Your task to perform on an android device: Clear the cart on walmart. Search for razer huntsman on walmart, select the first entry, and add it to the cart. Image 0: 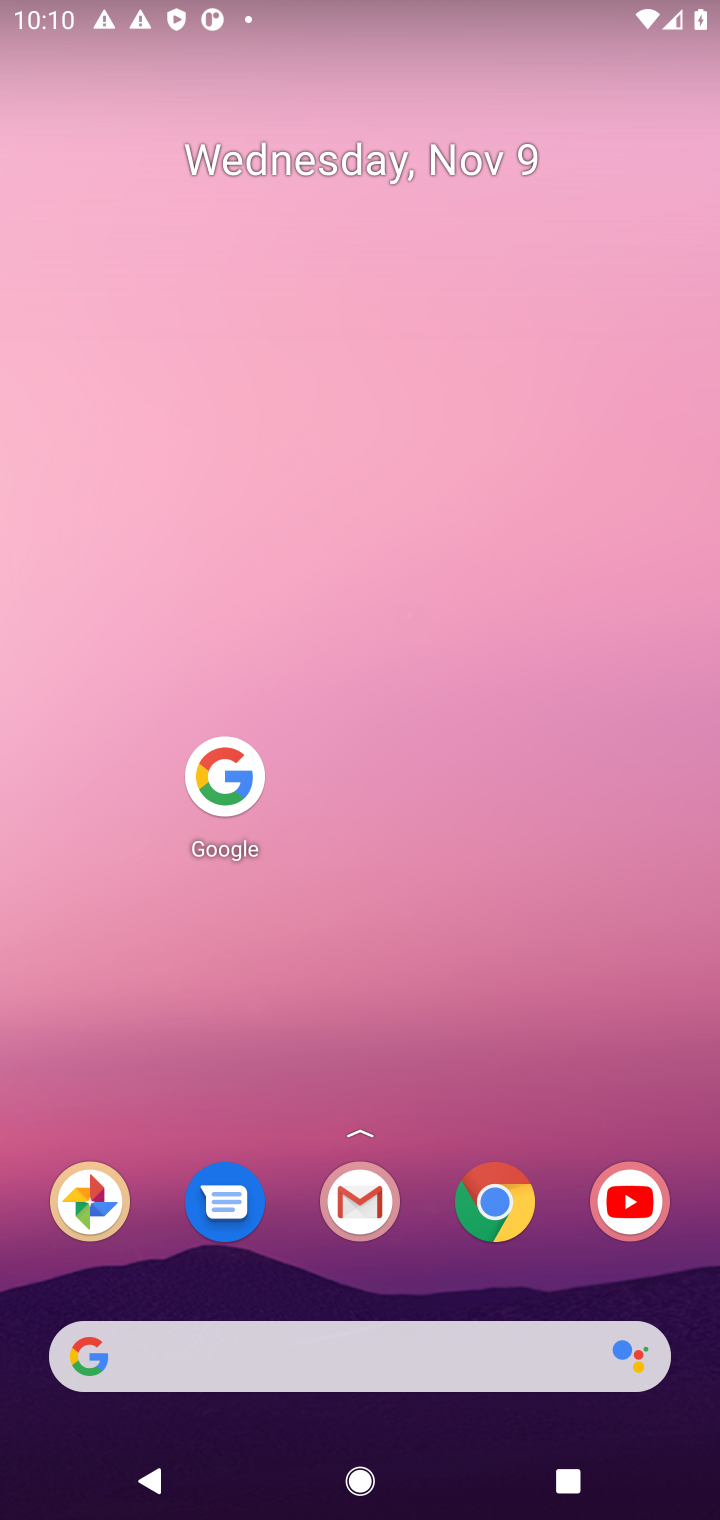
Step 0: click (207, 762)
Your task to perform on an android device: Clear the cart on walmart. Search for razer huntsman on walmart, select the first entry, and add it to the cart. Image 1: 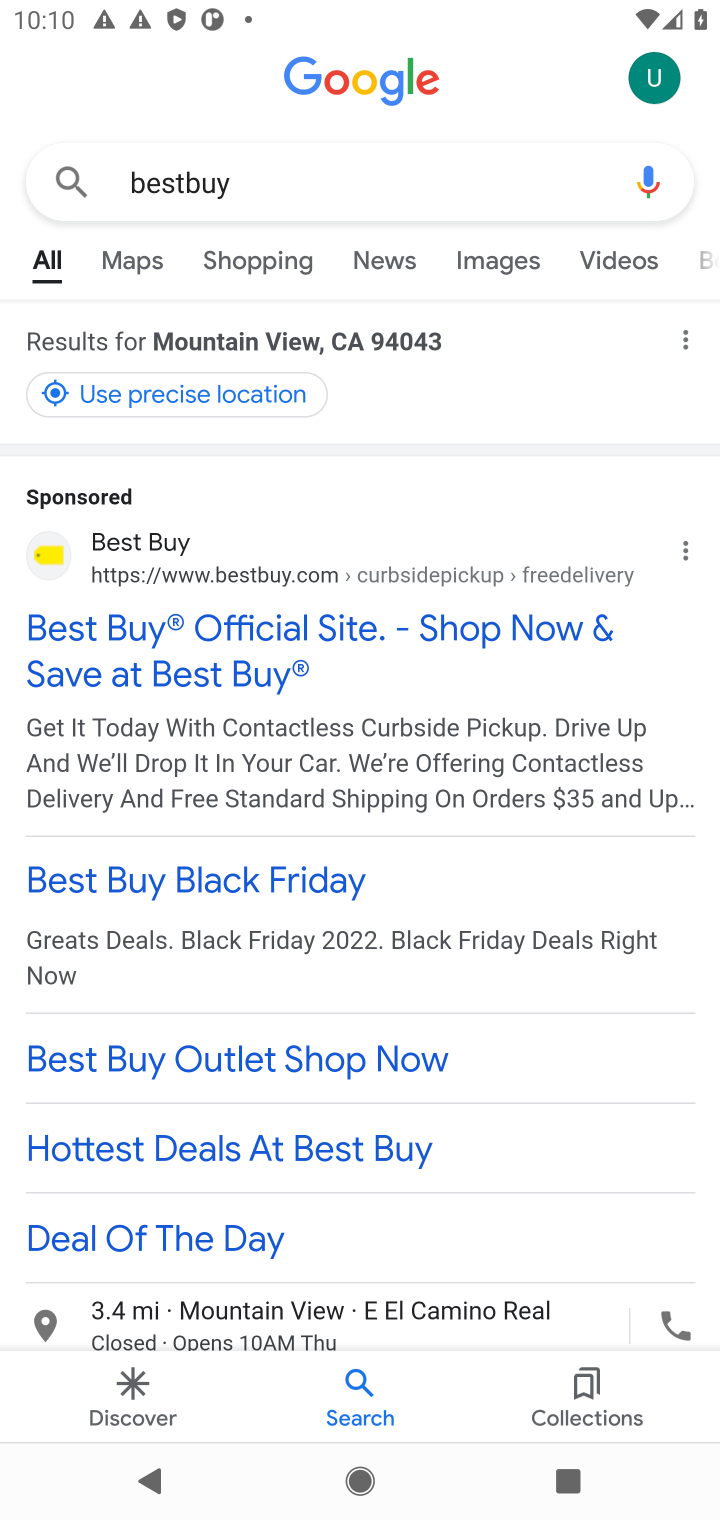
Step 1: click (335, 172)
Your task to perform on an android device: Clear the cart on walmart. Search for razer huntsman on walmart, select the first entry, and add it to the cart. Image 2: 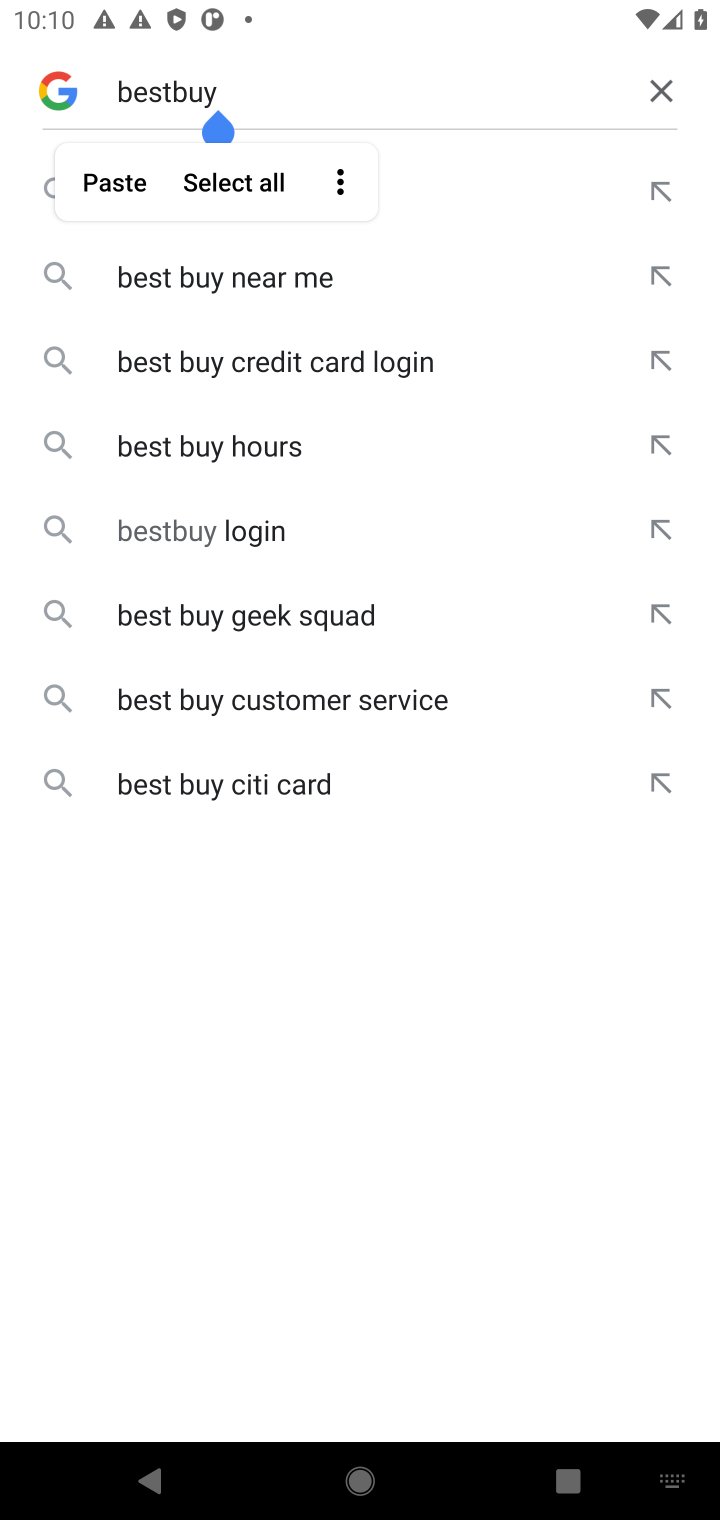
Step 2: click (658, 85)
Your task to perform on an android device: Clear the cart on walmart. Search for razer huntsman on walmart, select the first entry, and add it to the cart. Image 3: 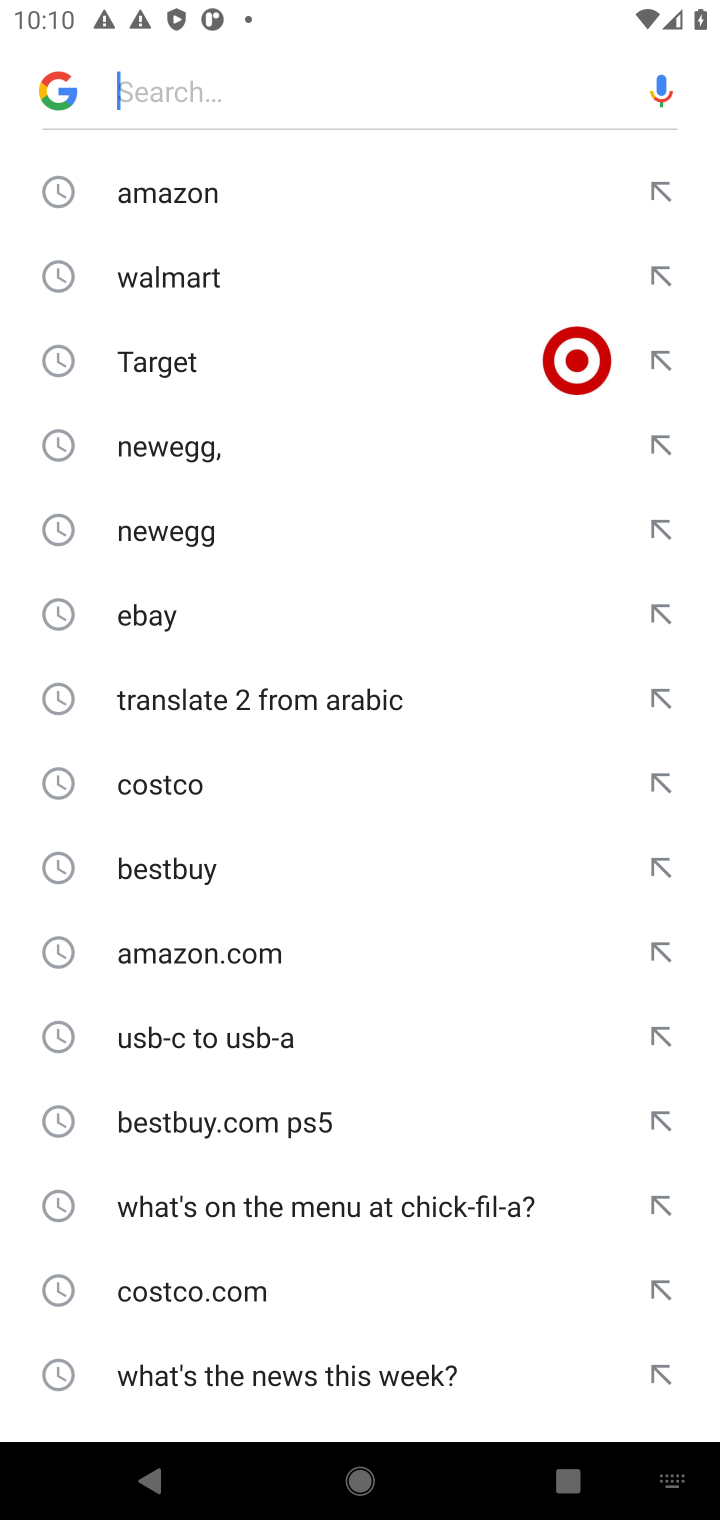
Step 3: click (170, 274)
Your task to perform on an android device: Clear the cart on walmart. Search for razer huntsman on walmart, select the first entry, and add it to the cart. Image 4: 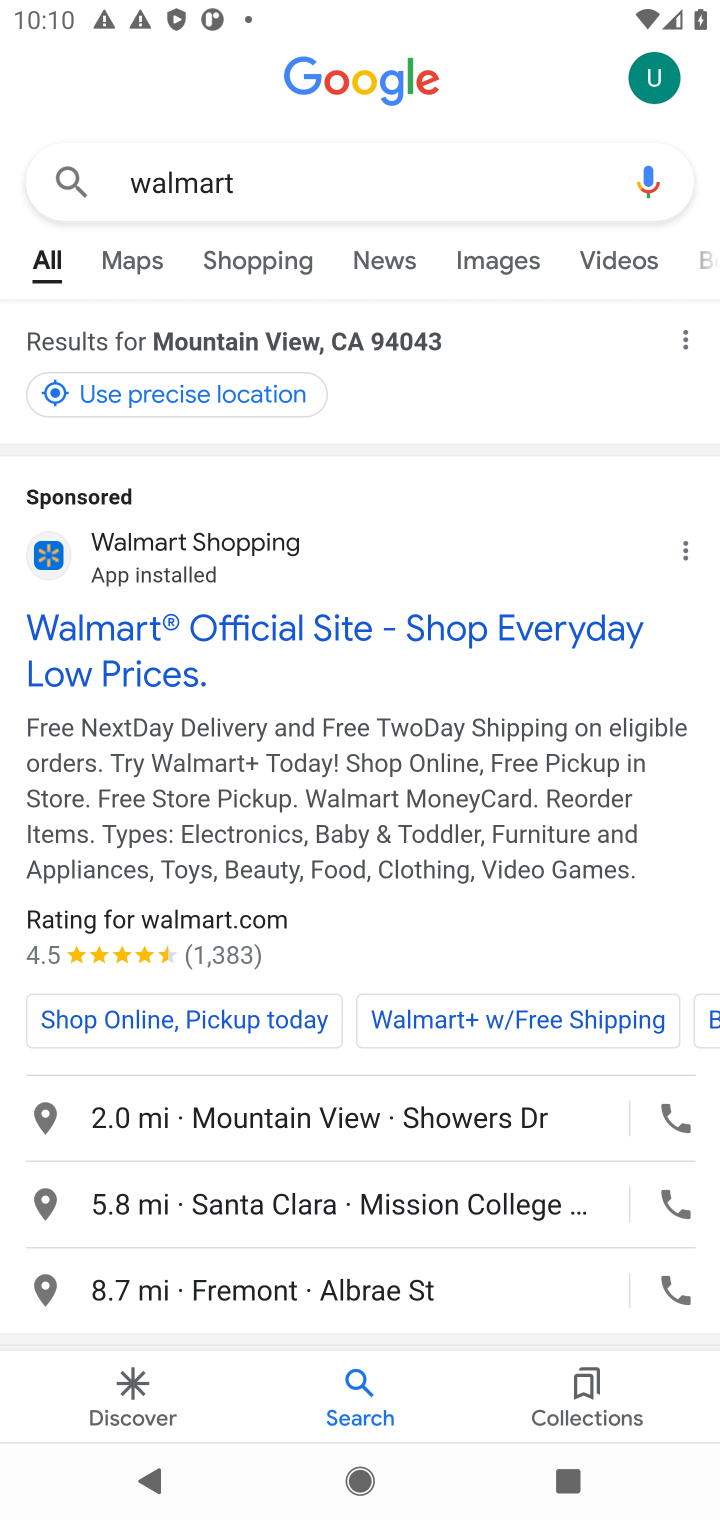
Step 4: drag from (281, 1255) to (471, 451)
Your task to perform on an android device: Clear the cart on walmart. Search for razer huntsman on walmart, select the first entry, and add it to the cart. Image 5: 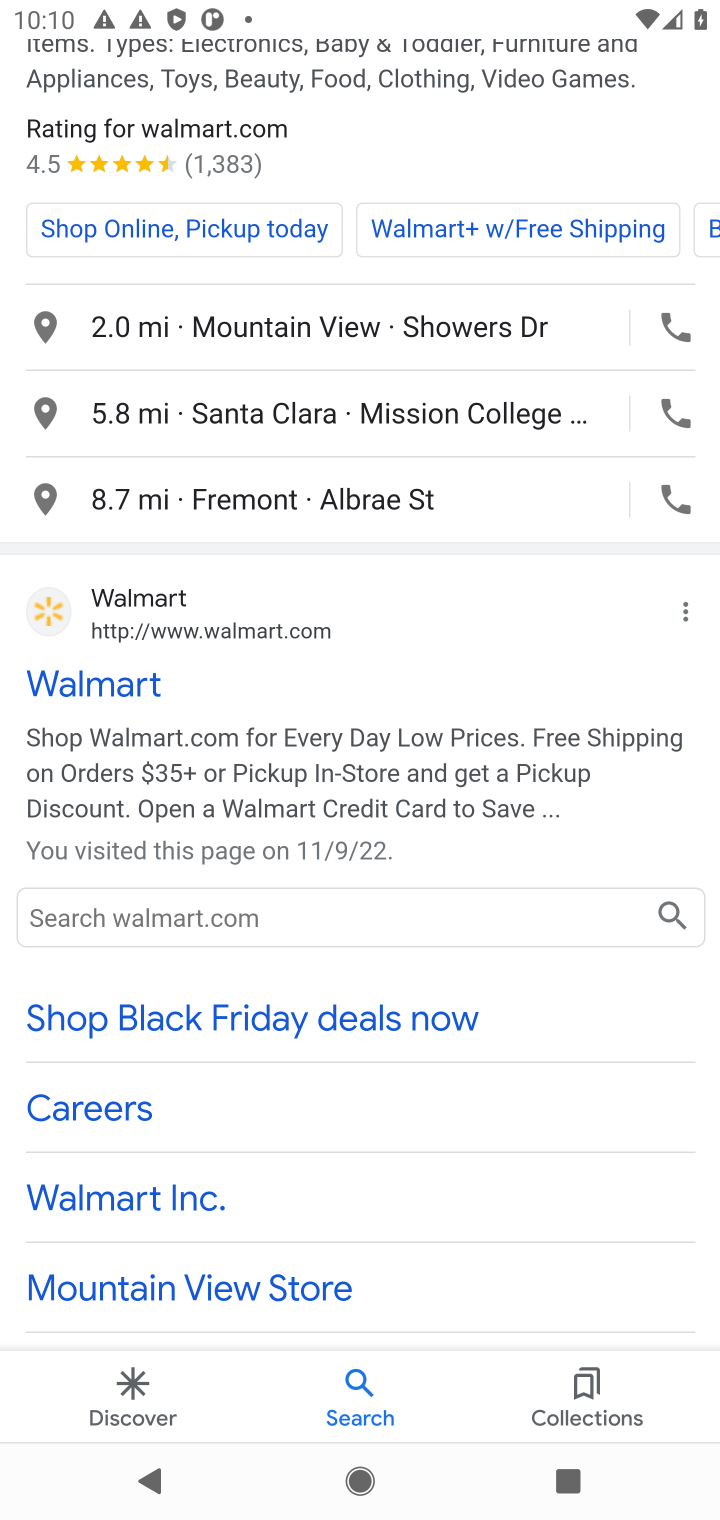
Step 5: click (114, 674)
Your task to perform on an android device: Clear the cart on walmart. Search for razer huntsman on walmart, select the first entry, and add it to the cart. Image 6: 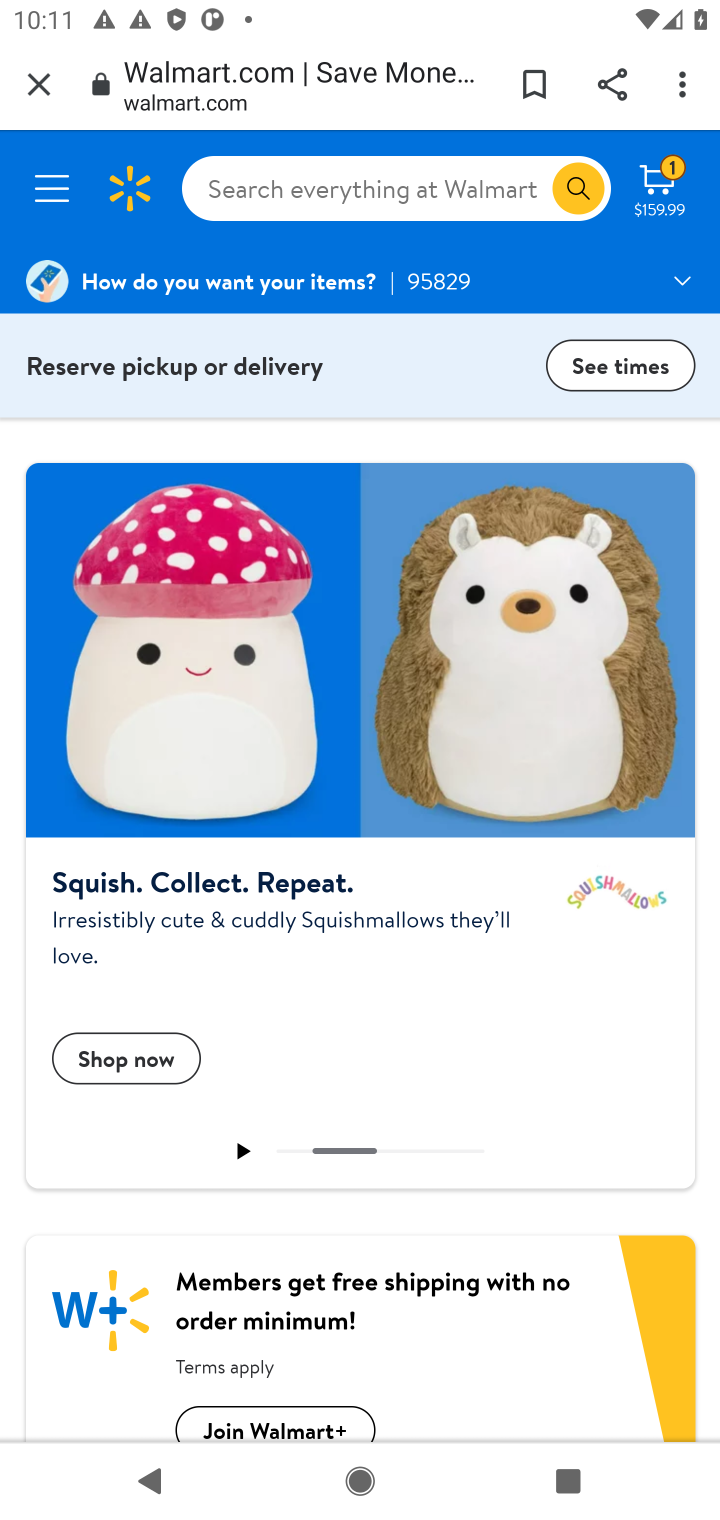
Step 6: click (659, 168)
Your task to perform on an android device: Clear the cart on walmart. Search for razer huntsman on walmart, select the first entry, and add it to the cart. Image 7: 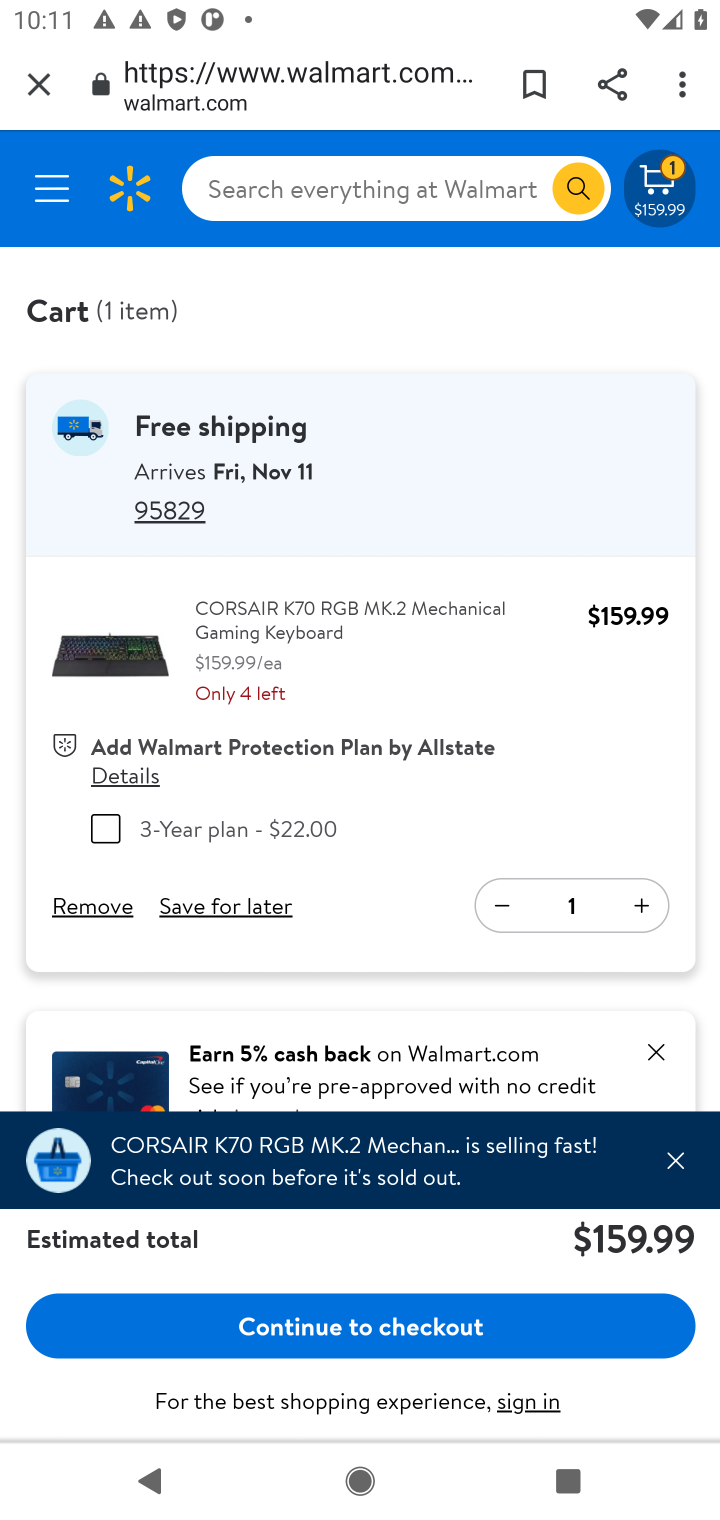
Step 7: click (102, 908)
Your task to perform on an android device: Clear the cart on walmart. Search for razer huntsman on walmart, select the first entry, and add it to the cart. Image 8: 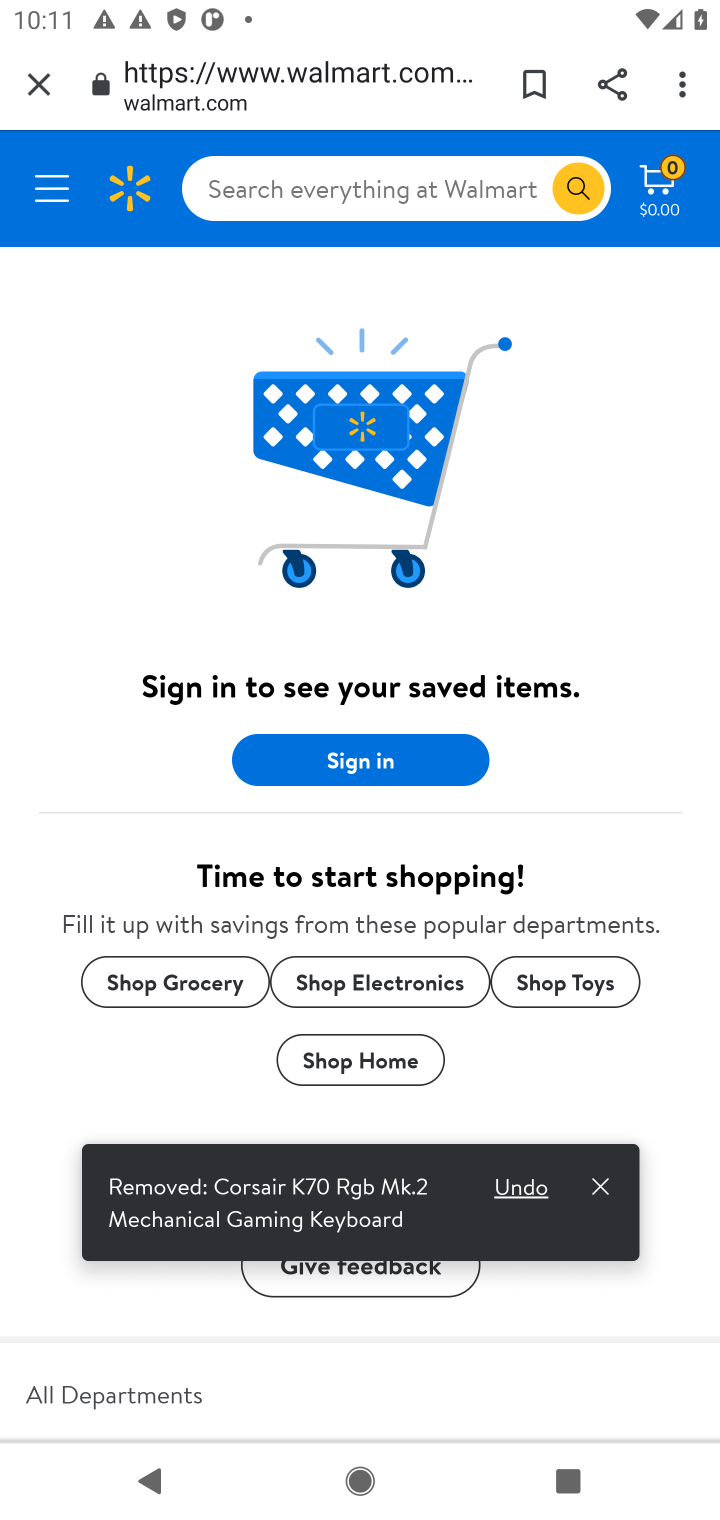
Step 8: click (414, 180)
Your task to perform on an android device: Clear the cart on walmart. Search for razer huntsman on walmart, select the first entry, and add it to the cart. Image 9: 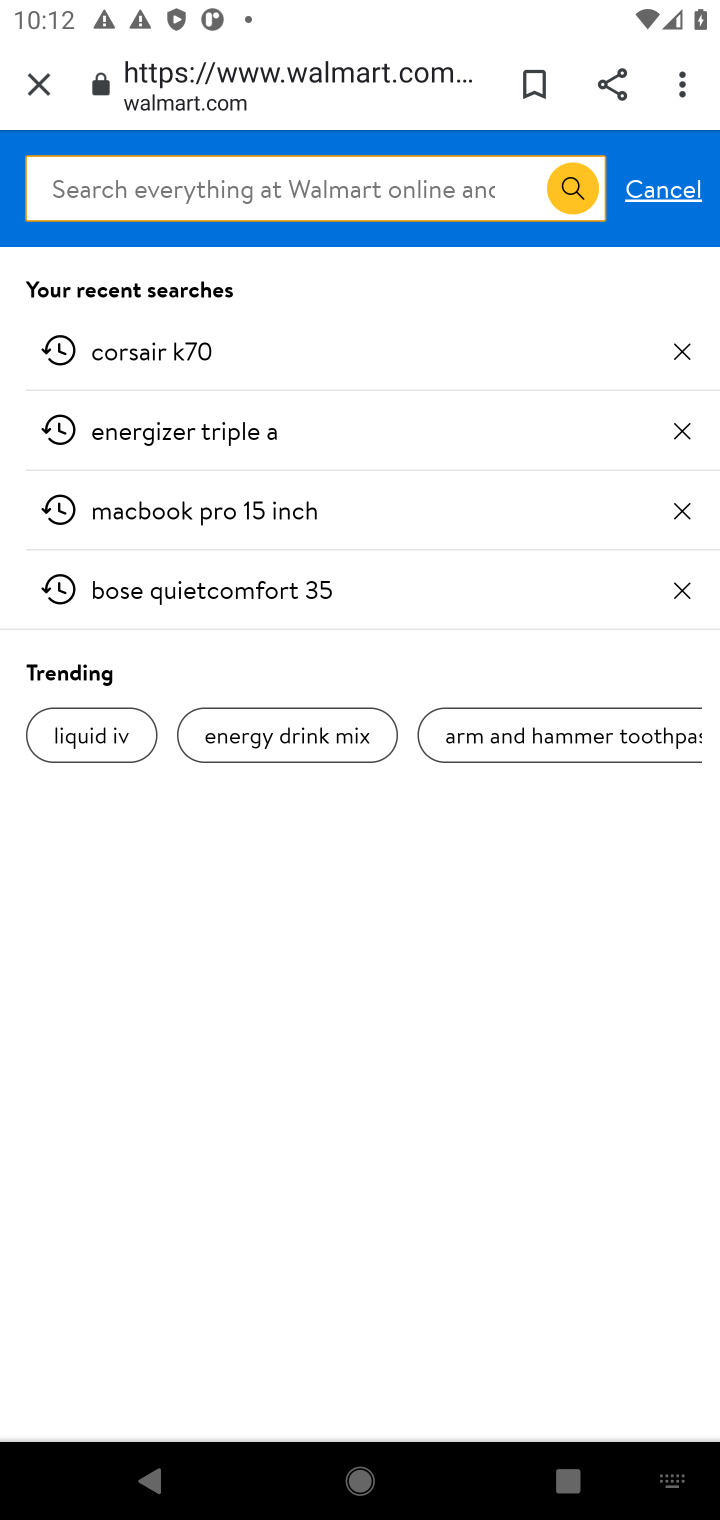
Step 9: type " razer huntsman"
Your task to perform on an android device: Clear the cart on walmart. Search for razer huntsman on walmart, select the first entry, and add it to the cart. Image 10: 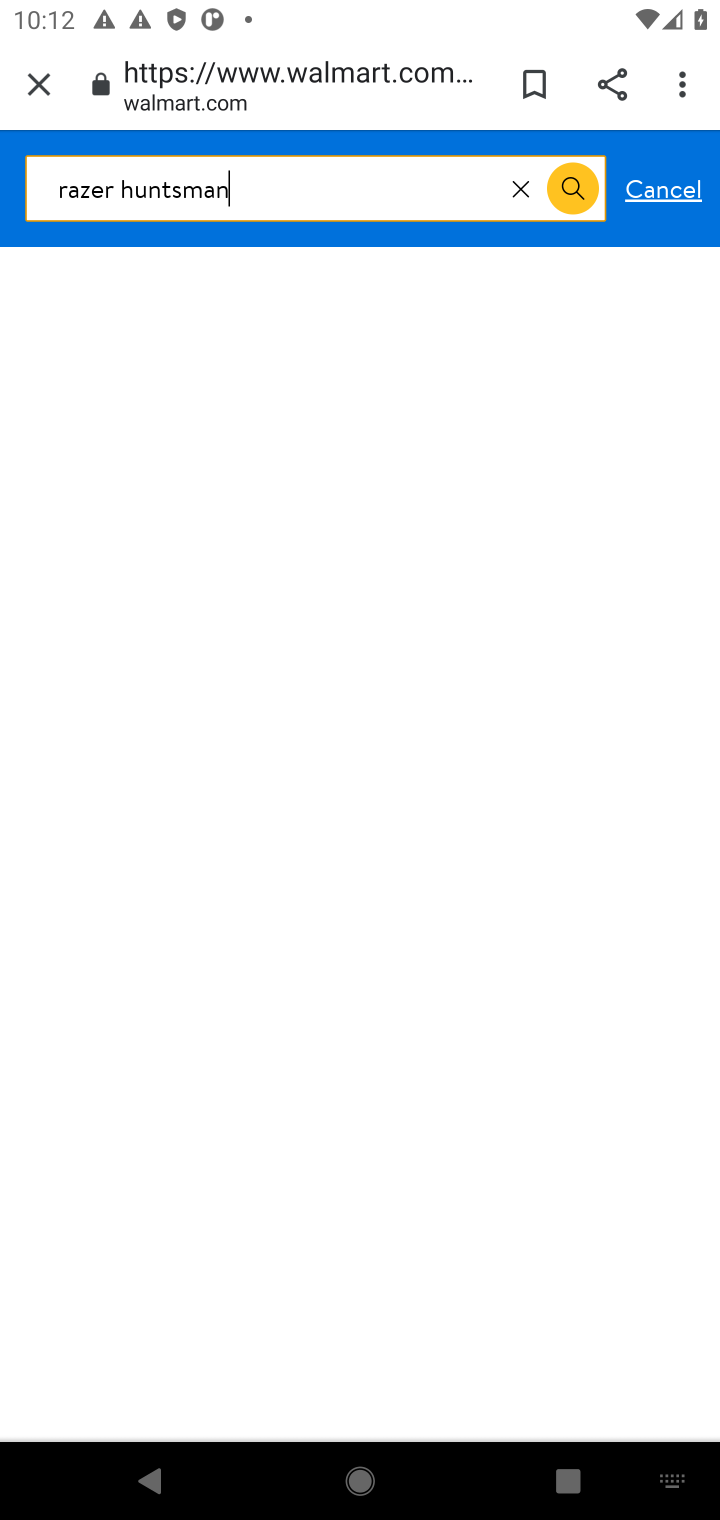
Step 10: press enter
Your task to perform on an android device: Clear the cart on walmart. Search for razer huntsman on walmart, select the first entry, and add it to the cart. Image 11: 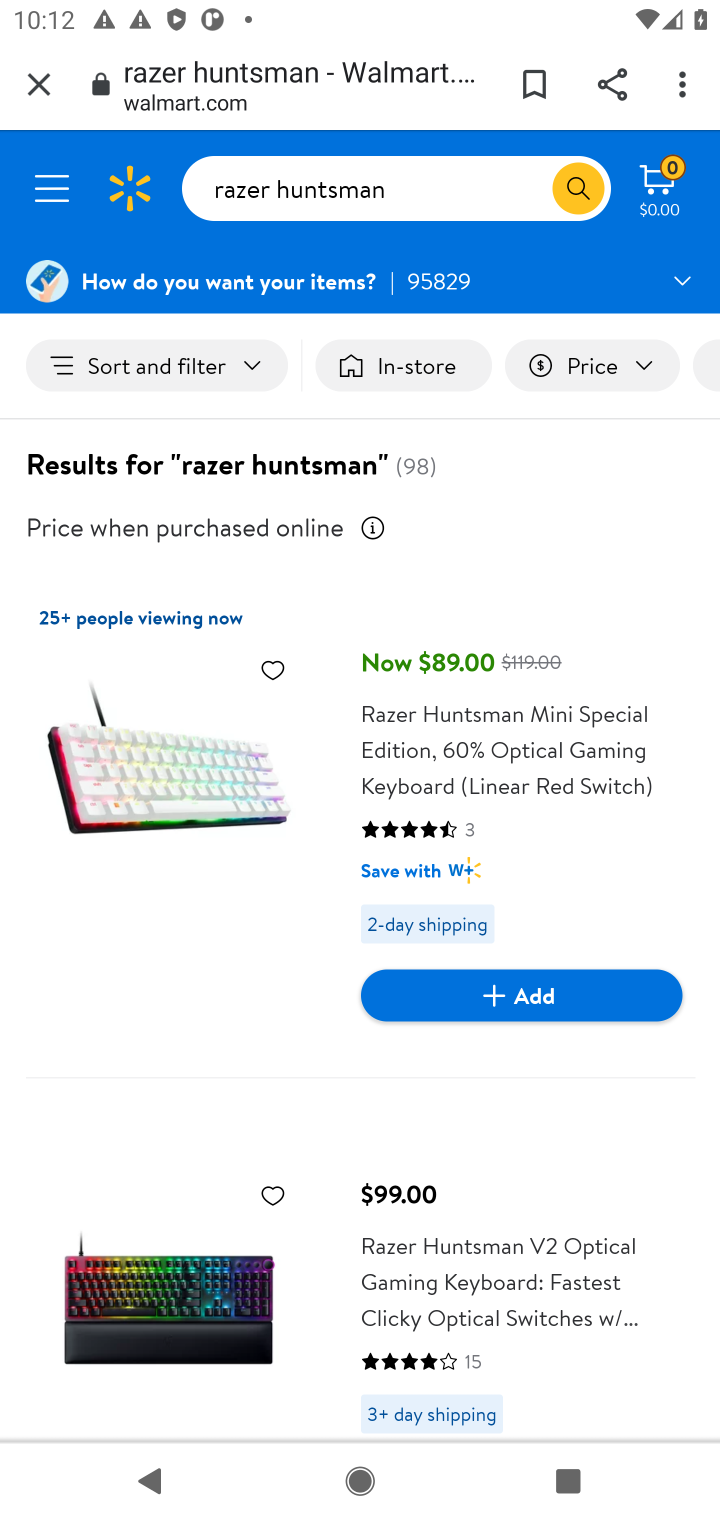
Step 11: click (545, 995)
Your task to perform on an android device: Clear the cart on walmart. Search for razer huntsman on walmart, select the first entry, and add it to the cart. Image 12: 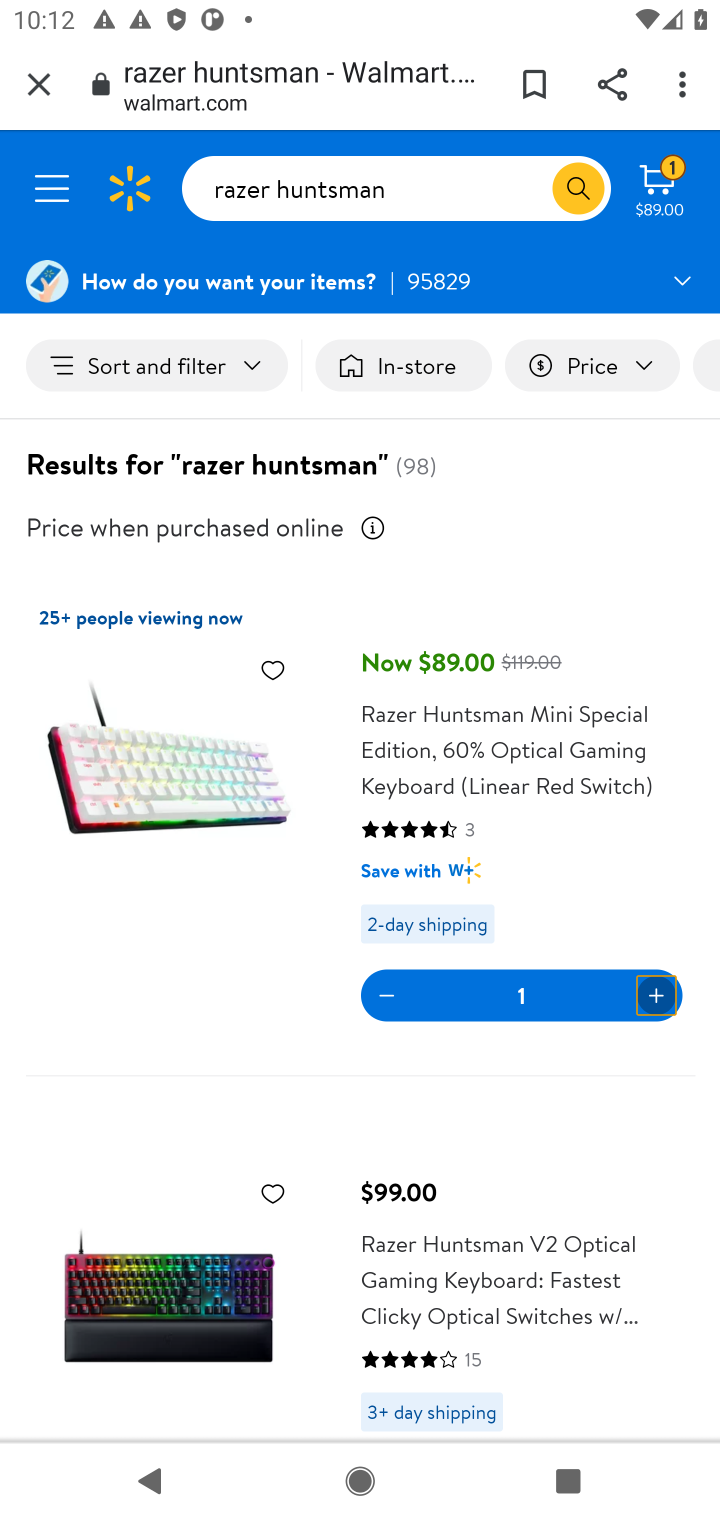
Step 12: click (660, 179)
Your task to perform on an android device: Clear the cart on walmart. Search for razer huntsman on walmart, select the first entry, and add it to the cart. Image 13: 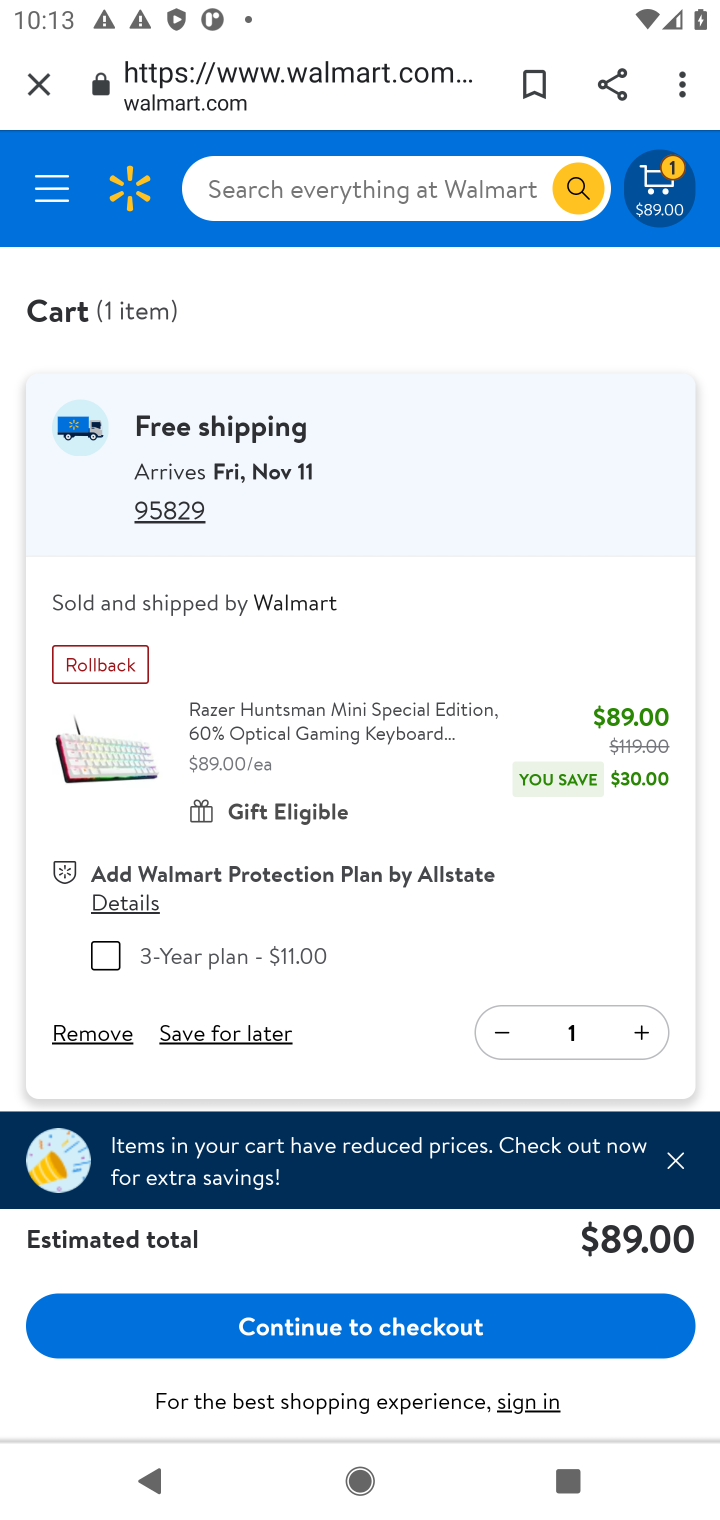
Step 13: task complete